Your task to perform on an android device: Go to Reddit.com Image 0: 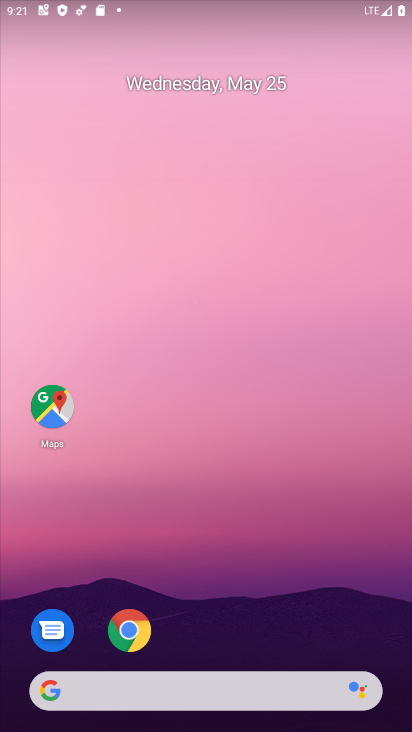
Step 0: click (128, 621)
Your task to perform on an android device: Go to Reddit.com Image 1: 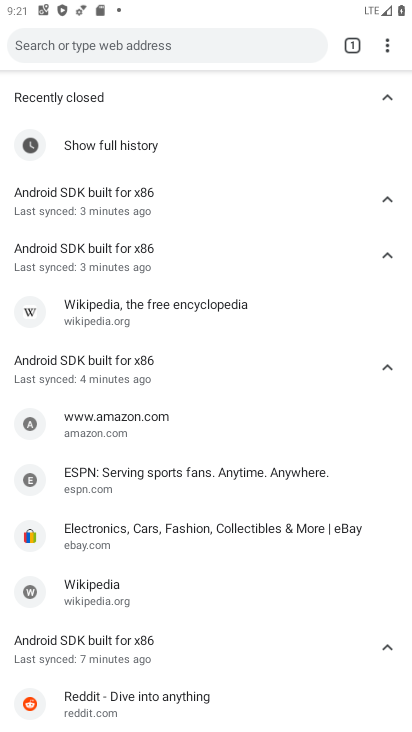
Step 1: click (354, 38)
Your task to perform on an android device: Go to Reddit.com Image 2: 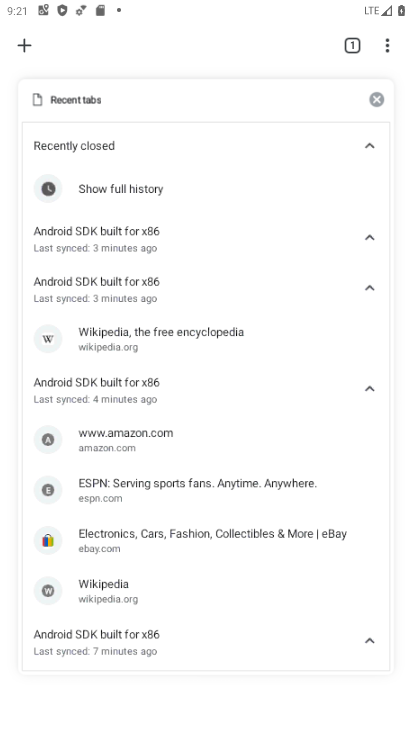
Step 2: click (13, 43)
Your task to perform on an android device: Go to Reddit.com Image 3: 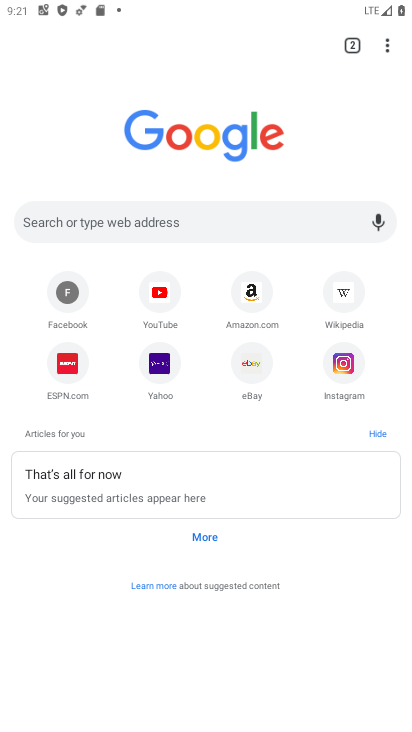
Step 3: click (155, 234)
Your task to perform on an android device: Go to Reddit.com Image 4: 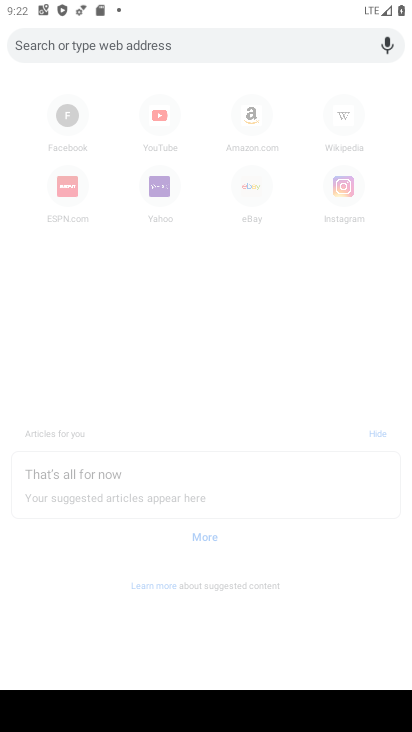
Step 4: type "reddit.com"
Your task to perform on an android device: Go to Reddit.com Image 5: 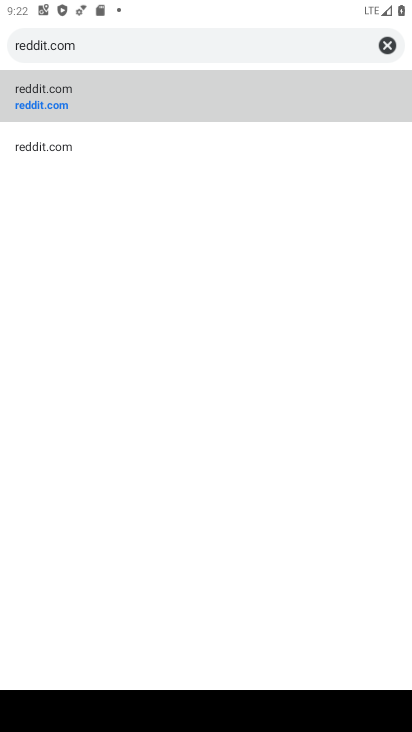
Step 5: click (74, 97)
Your task to perform on an android device: Go to Reddit.com Image 6: 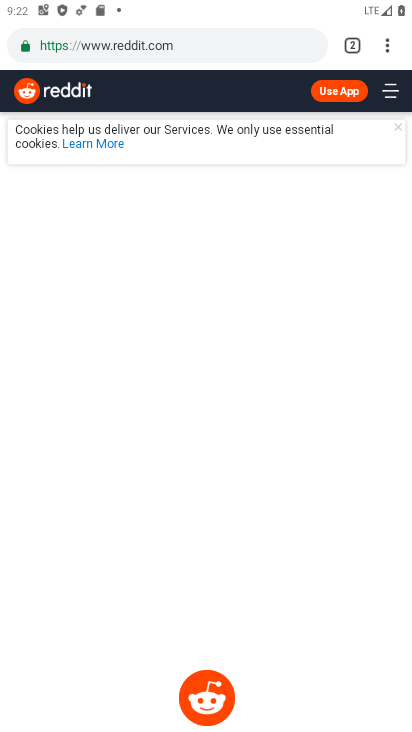
Step 6: task complete